Your task to perform on an android device: Check out the best rated electric trimmers on Lowe's Image 0: 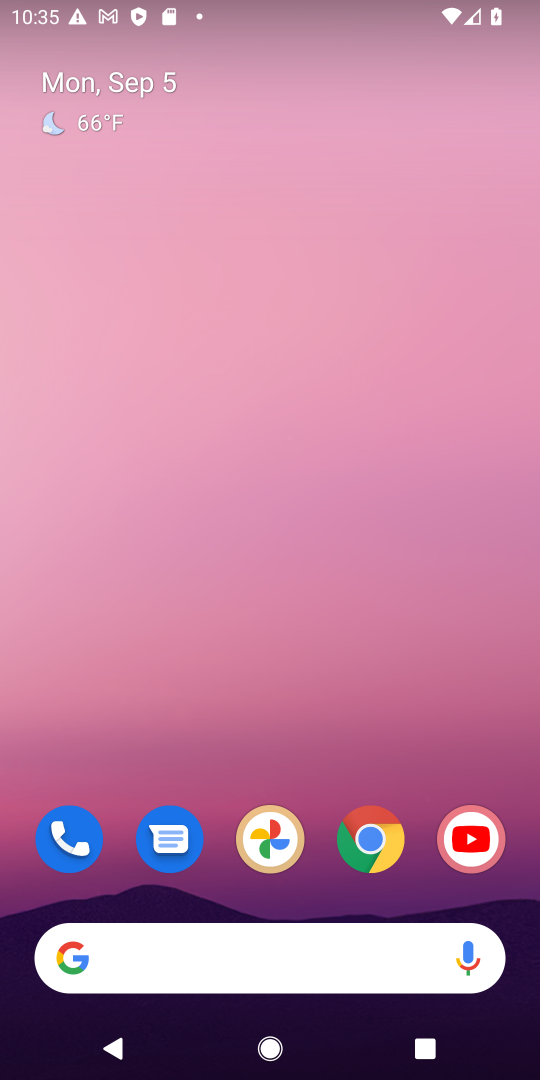
Step 0: click (328, 294)
Your task to perform on an android device: Check out the best rated electric trimmers on Lowe's Image 1: 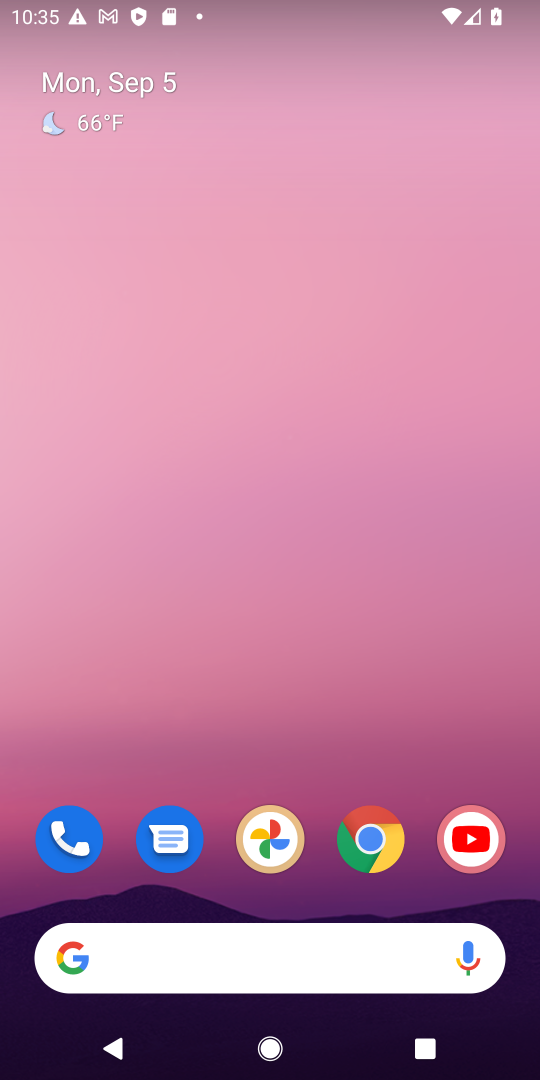
Step 1: drag from (323, 658) to (323, 152)
Your task to perform on an android device: Check out the best rated electric trimmers on Lowe's Image 2: 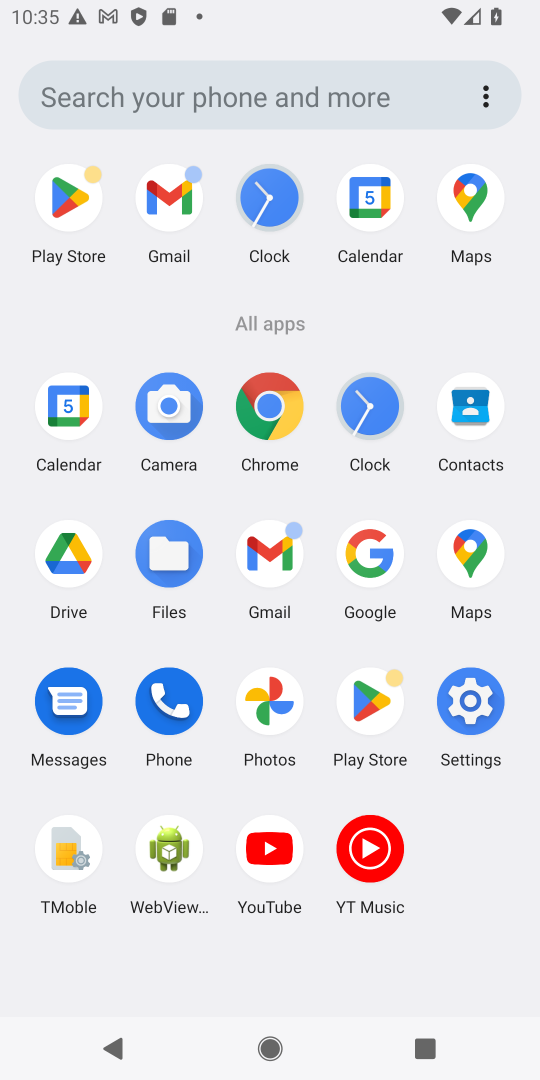
Step 2: click (358, 637)
Your task to perform on an android device: Check out the best rated electric trimmers on Lowe's Image 3: 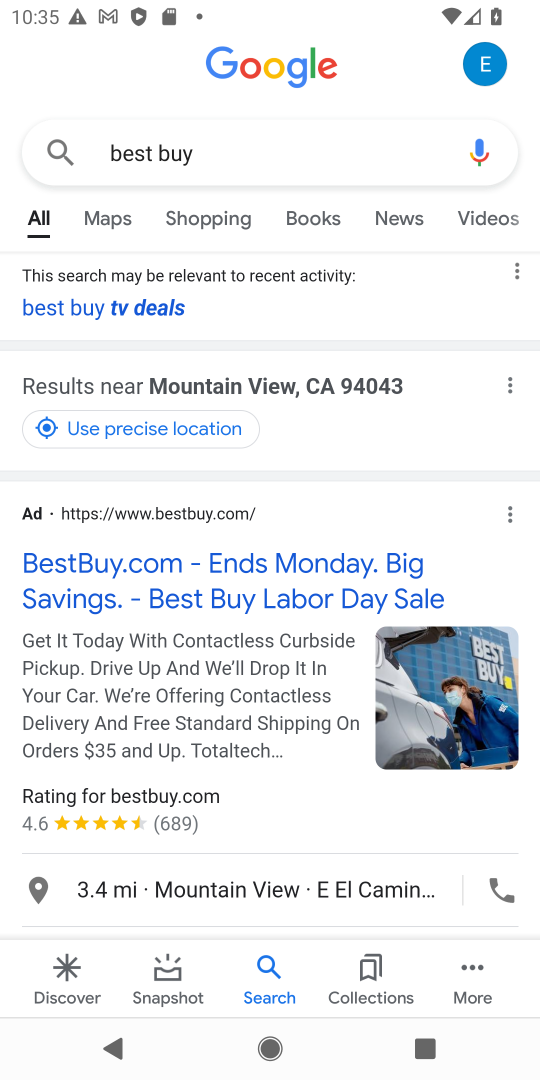
Step 3: click (253, 153)
Your task to perform on an android device: Check out the best rated electric trimmers on Lowe's Image 4: 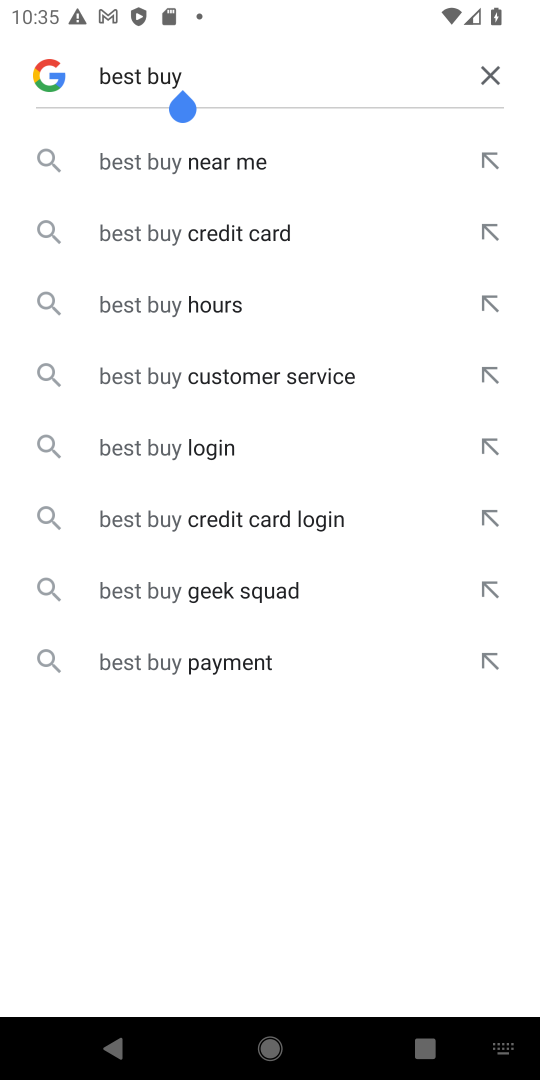
Step 4: click (477, 71)
Your task to perform on an android device: Check out the best rated electric trimmers on Lowe's Image 5: 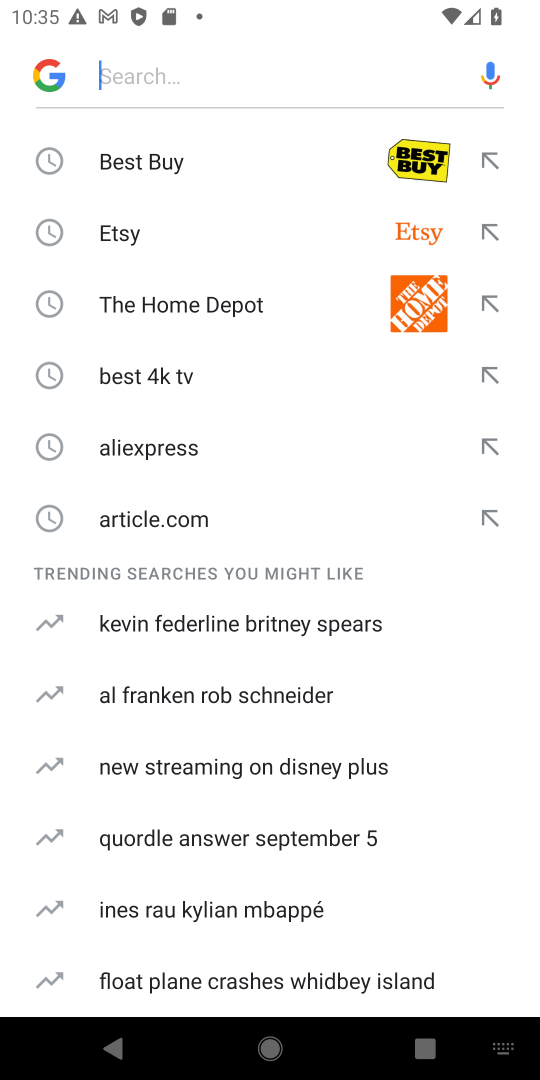
Step 5: type "Lowe's"
Your task to perform on an android device: Check out the best rated electric trimmers on Lowe's Image 6: 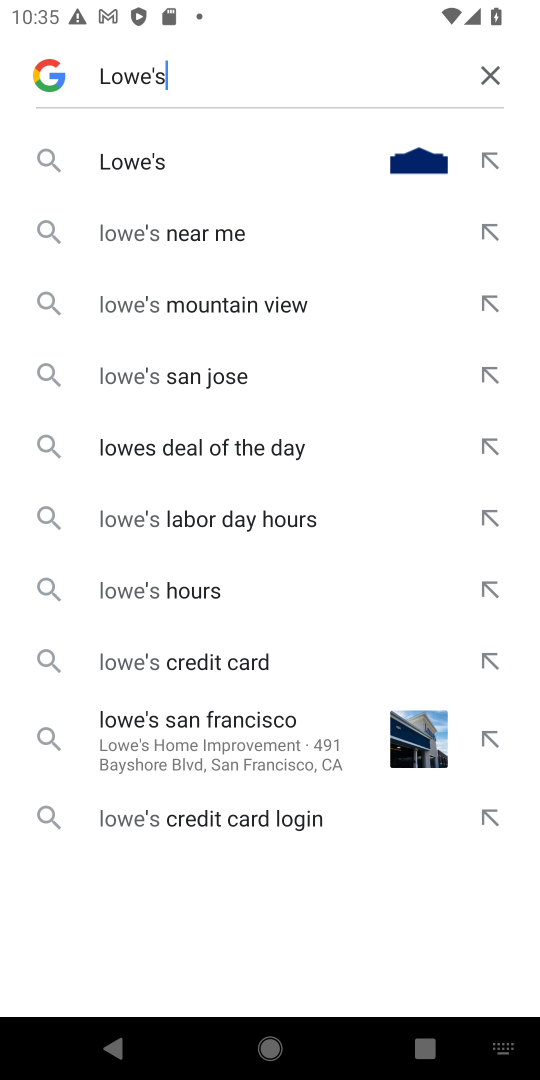
Step 6: click (147, 158)
Your task to perform on an android device: Check out the best rated electric trimmers on Lowe's Image 7: 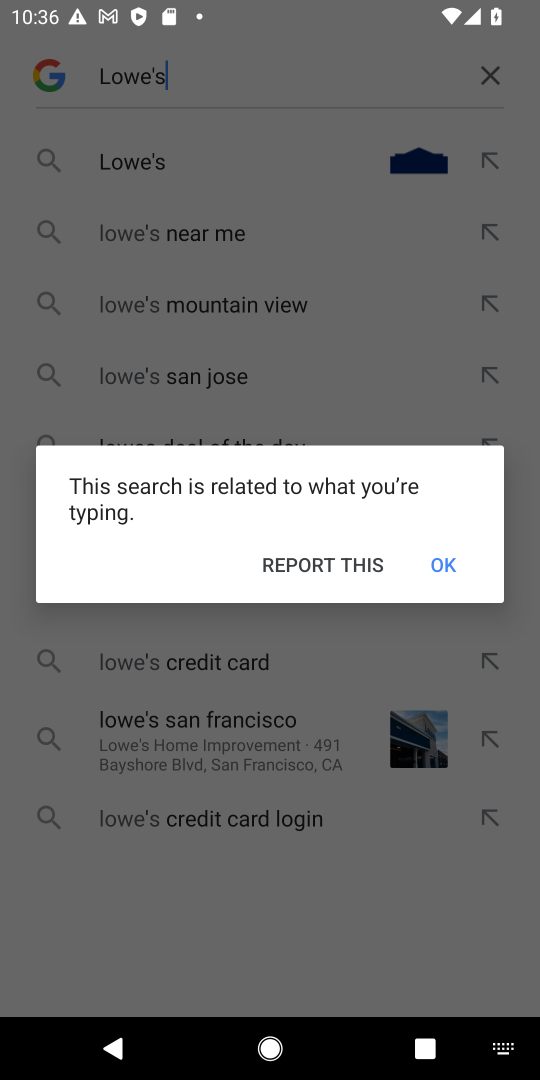
Step 7: click (438, 571)
Your task to perform on an android device: Check out the best rated electric trimmers on Lowe's Image 8: 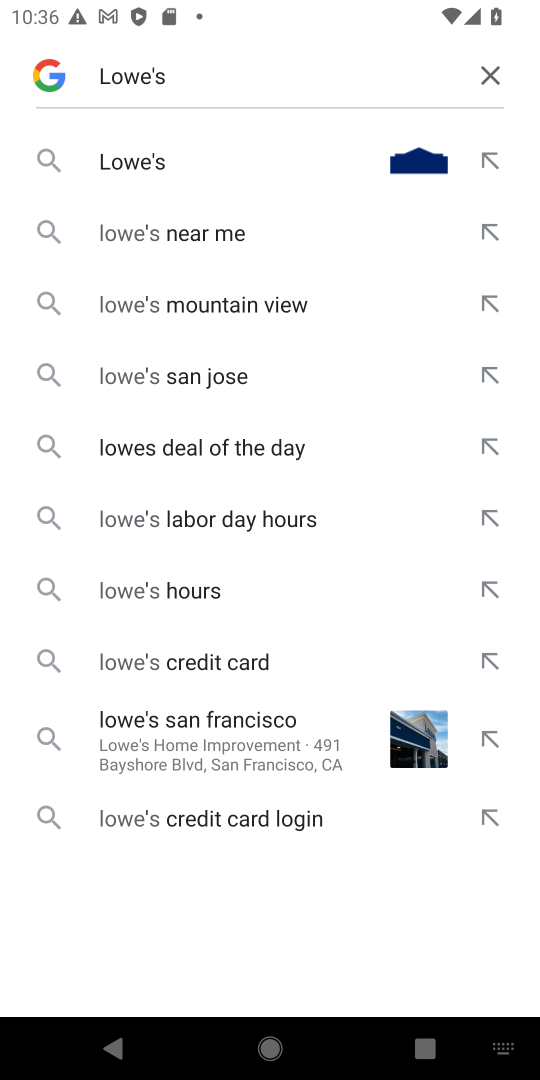
Step 8: click (170, 170)
Your task to perform on an android device: Check out the best rated electric trimmers on Lowe's Image 9: 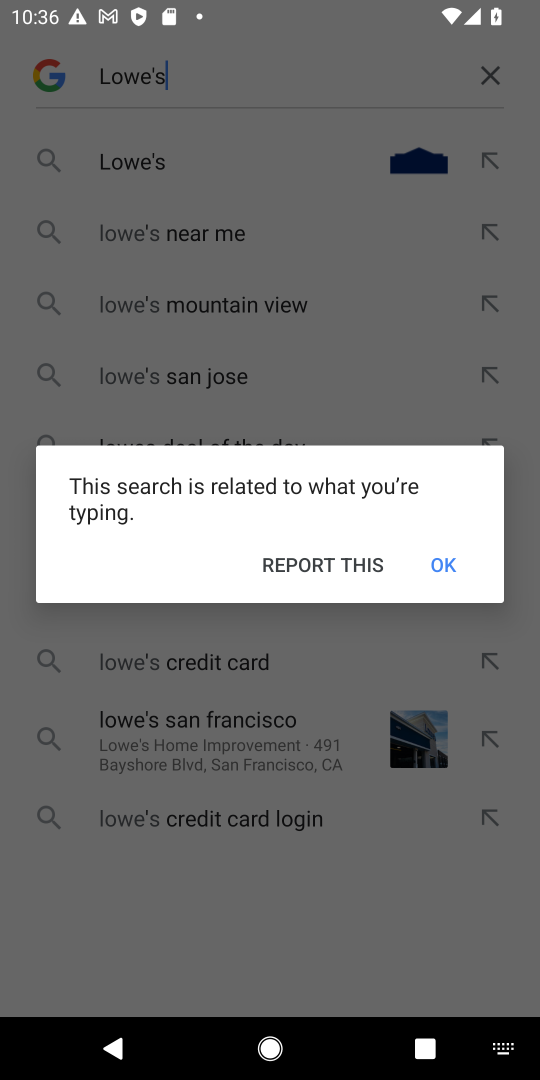
Step 9: click (444, 559)
Your task to perform on an android device: Check out the best rated electric trimmers on Lowe's Image 10: 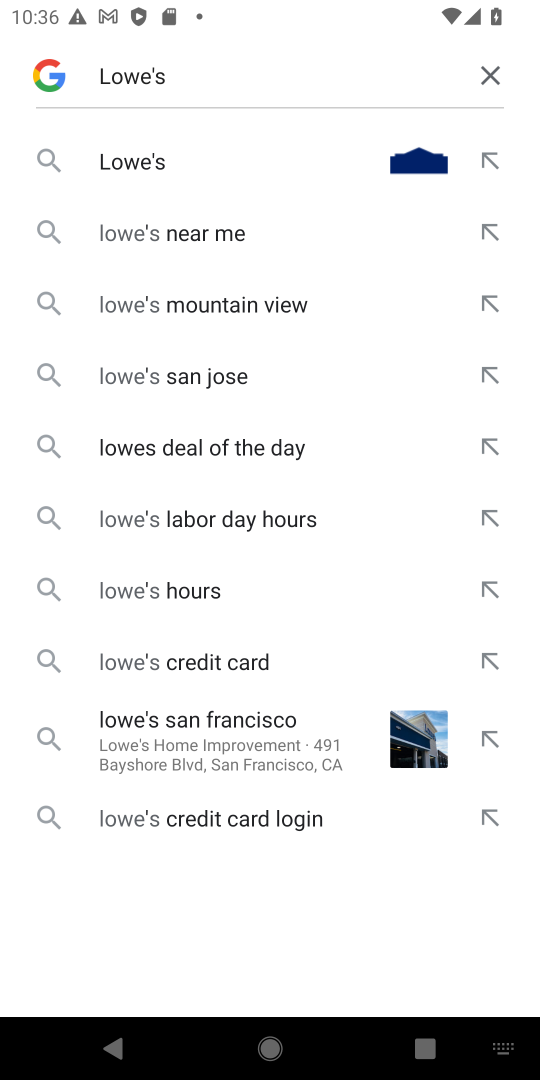
Step 10: click (440, 158)
Your task to perform on an android device: Check out the best rated electric trimmers on Lowe's Image 11: 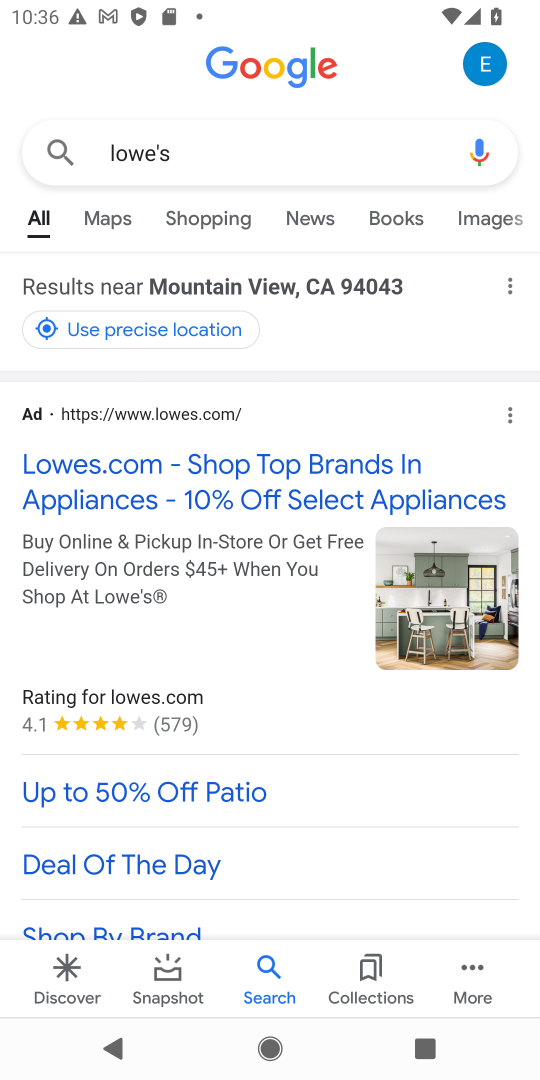
Step 11: click (176, 480)
Your task to perform on an android device: Check out the best rated electric trimmers on Lowe's Image 12: 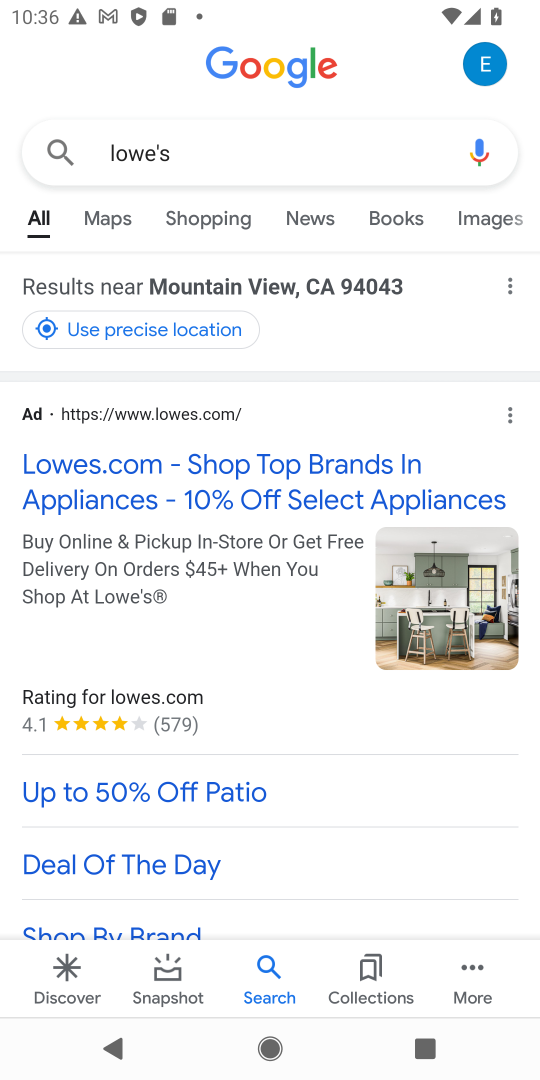
Step 12: click (155, 475)
Your task to perform on an android device: Check out the best rated electric trimmers on Lowe's Image 13: 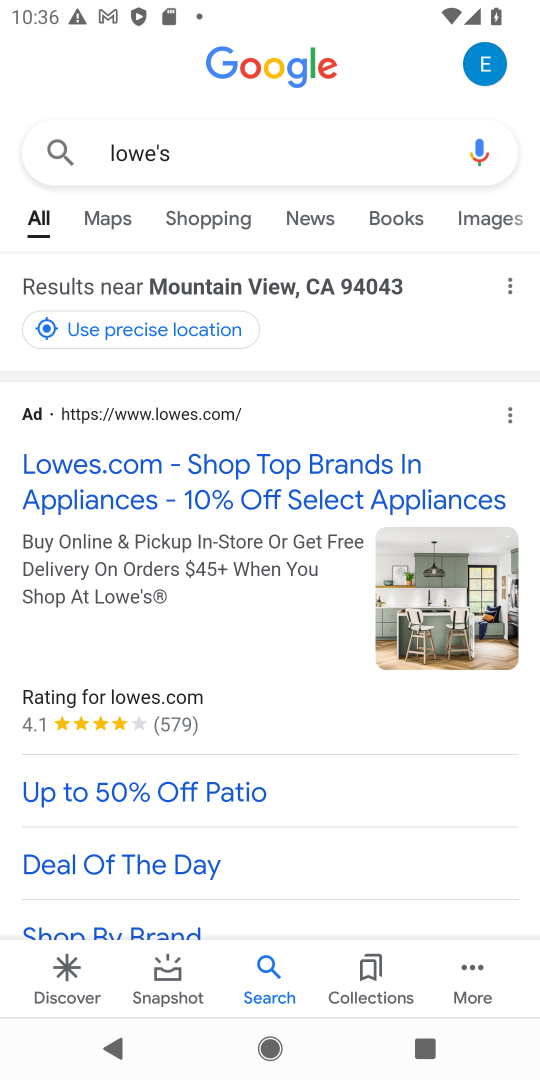
Step 13: click (242, 489)
Your task to perform on an android device: Check out the best rated electric trimmers on Lowe's Image 14: 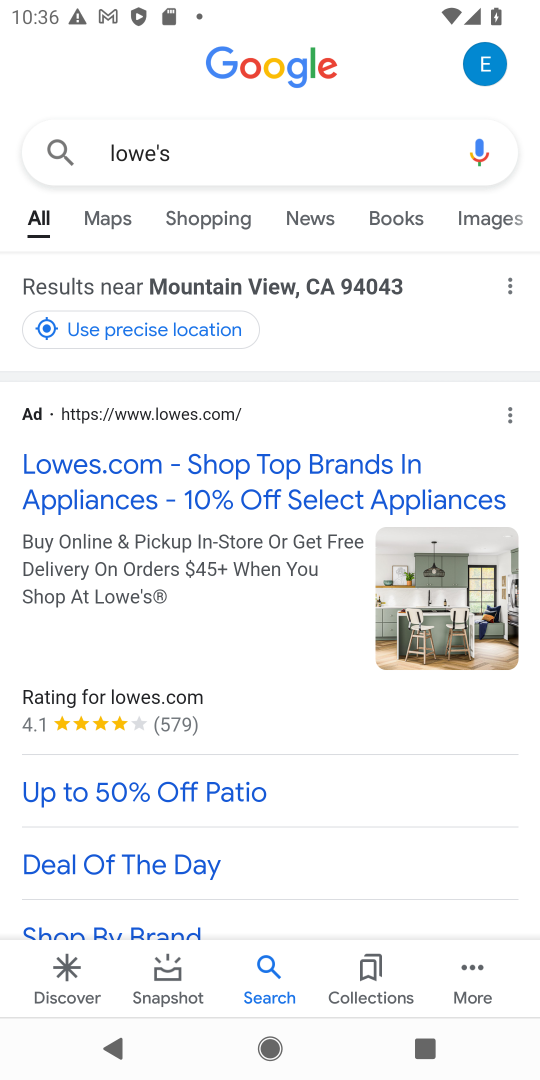
Step 14: click (240, 472)
Your task to perform on an android device: Check out the best rated electric trimmers on Lowe's Image 15: 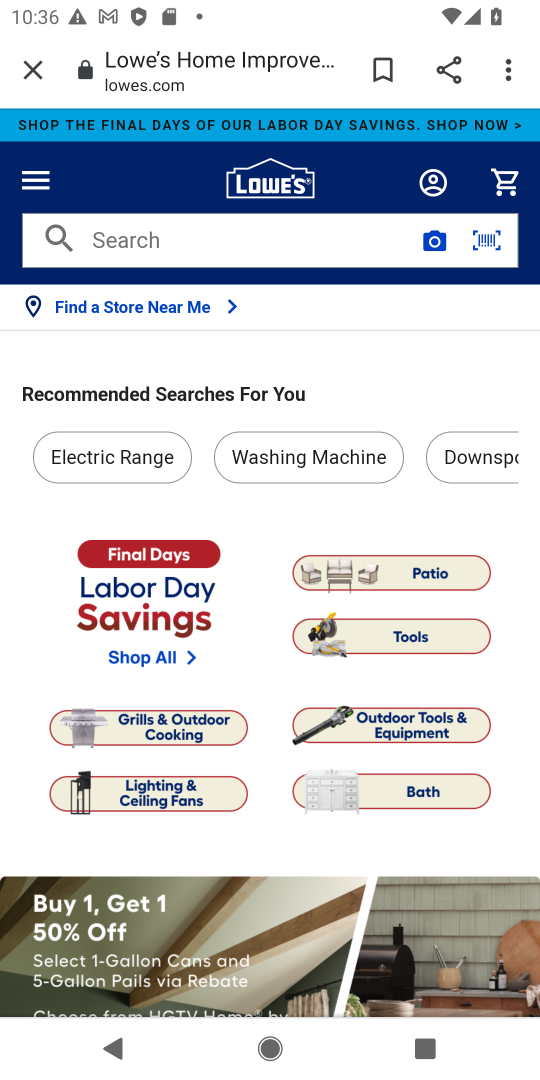
Step 15: click (191, 240)
Your task to perform on an android device: Check out the best rated electric trimmers on Lowe's Image 16: 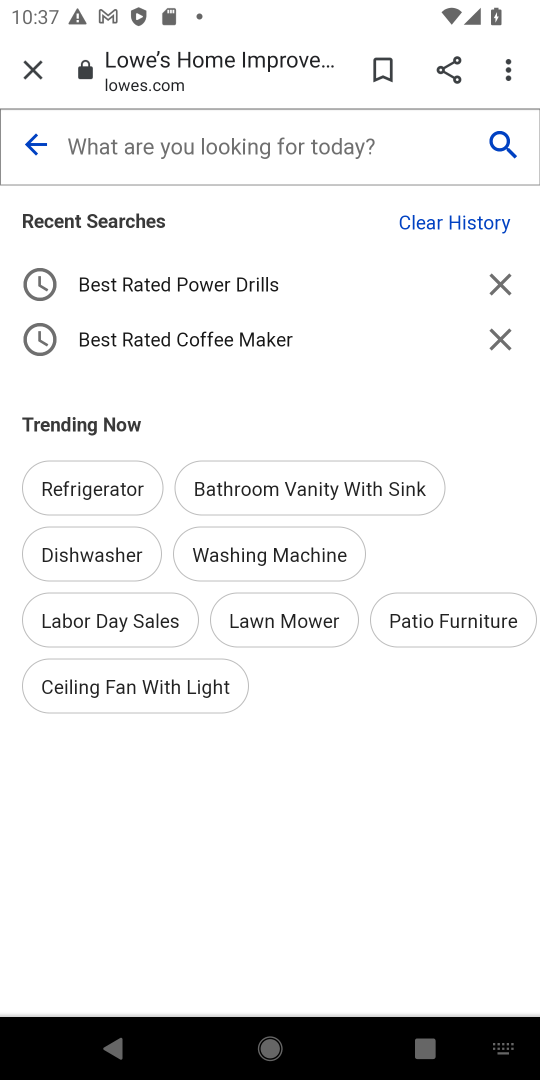
Step 16: type "best rated electric trimmers"
Your task to perform on an android device: Check out the best rated electric trimmers on Lowe's Image 17: 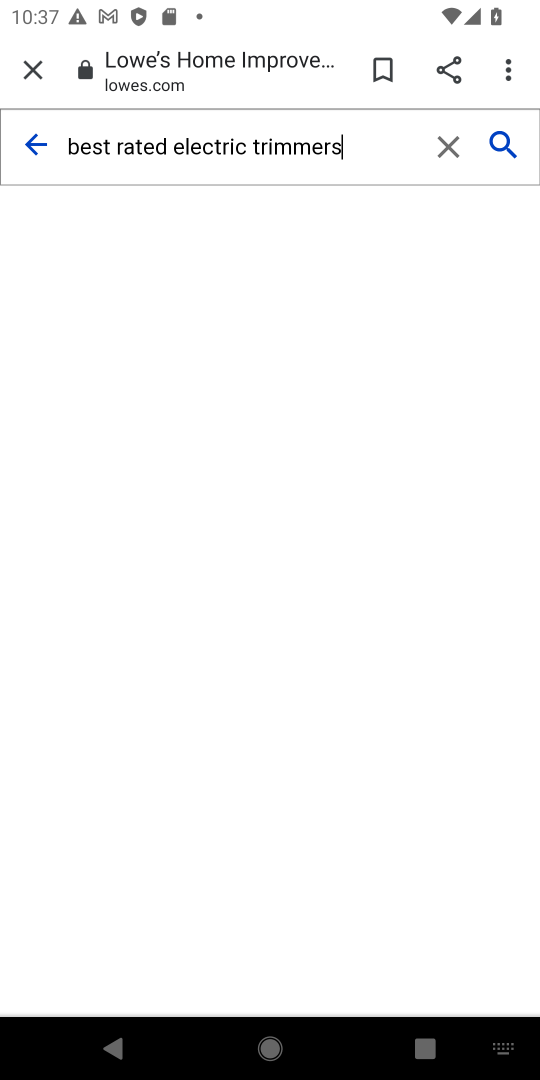
Step 17: click (506, 155)
Your task to perform on an android device: Check out the best rated electric trimmers on Lowe's Image 18: 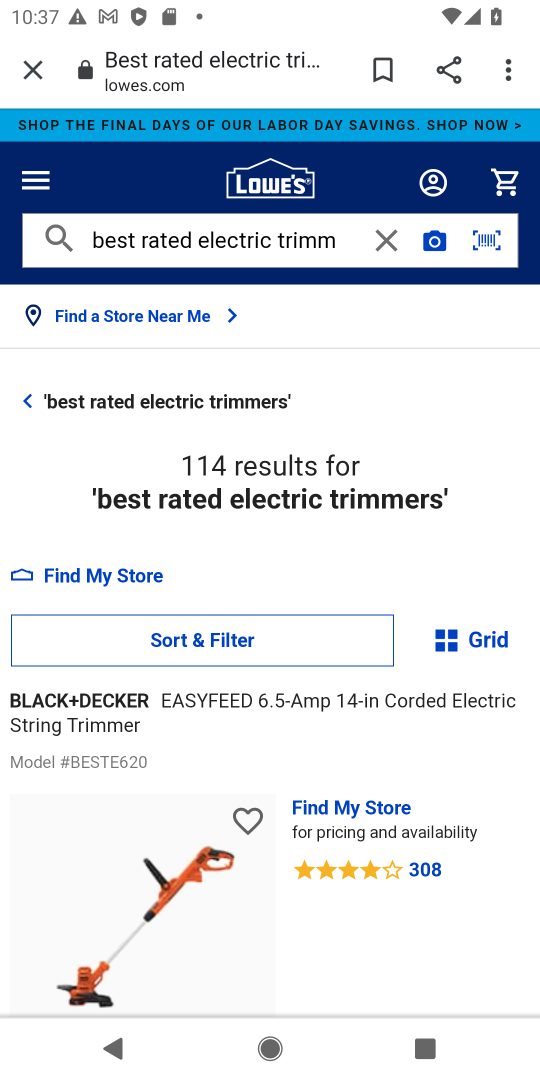
Step 18: task complete